Your task to perform on an android device: add a contact Image 0: 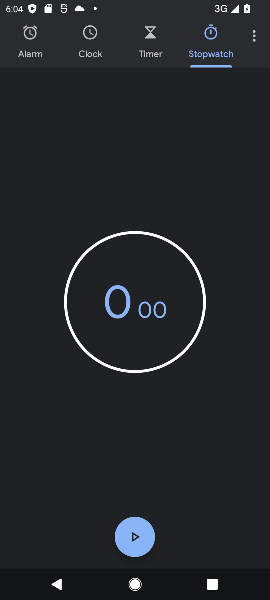
Step 0: press home button
Your task to perform on an android device: add a contact Image 1: 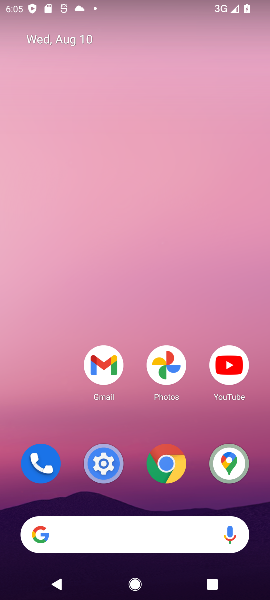
Step 1: drag from (139, 499) to (107, 33)
Your task to perform on an android device: add a contact Image 2: 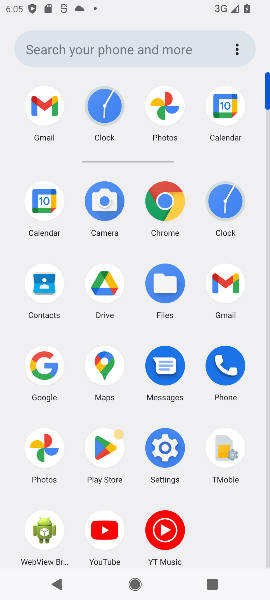
Step 2: click (44, 293)
Your task to perform on an android device: add a contact Image 3: 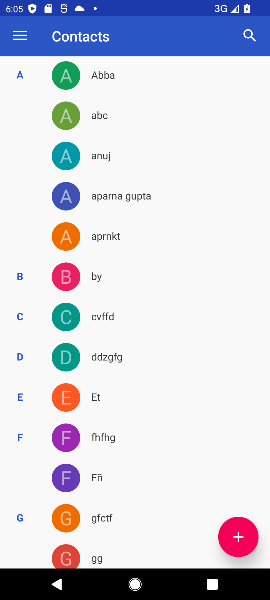
Step 3: click (235, 537)
Your task to perform on an android device: add a contact Image 4: 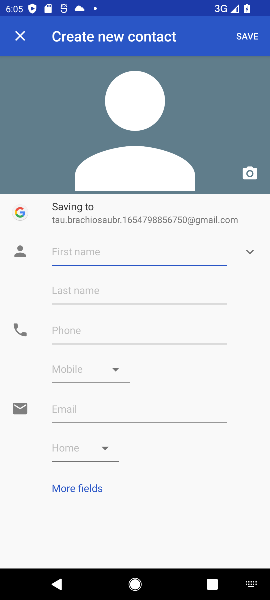
Step 4: type "hhhhh"
Your task to perform on an android device: add a contact Image 5: 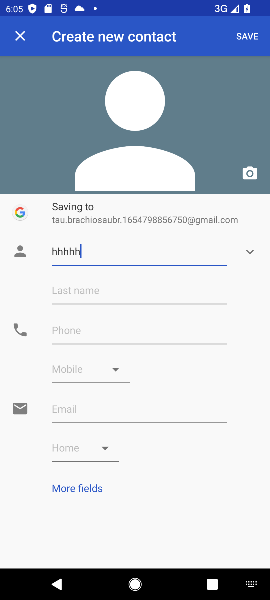
Step 5: click (109, 329)
Your task to perform on an android device: add a contact Image 6: 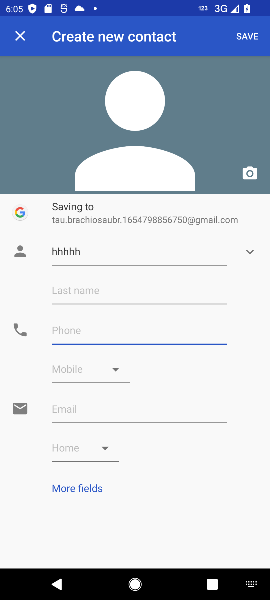
Step 6: type "000"
Your task to perform on an android device: add a contact Image 7: 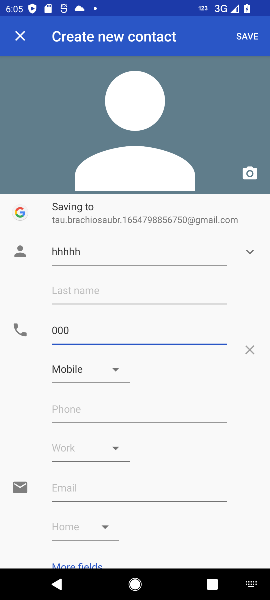
Step 7: click (251, 35)
Your task to perform on an android device: add a contact Image 8: 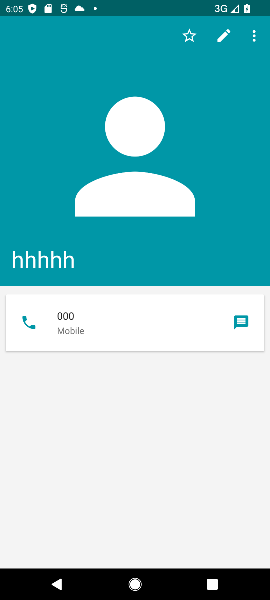
Step 8: task complete